Your task to perform on an android device: Open settings on Google Maps Image 0: 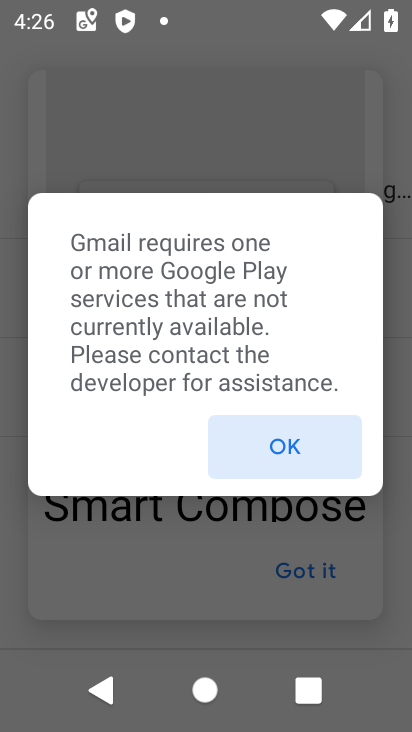
Step 0: press home button
Your task to perform on an android device: Open settings on Google Maps Image 1: 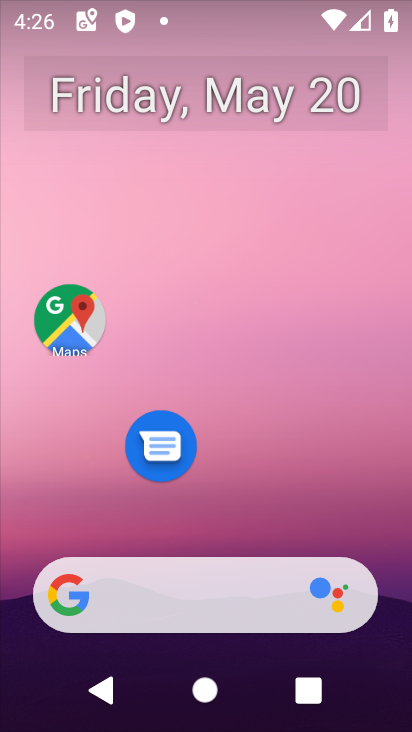
Step 1: drag from (208, 513) to (291, 8)
Your task to perform on an android device: Open settings on Google Maps Image 2: 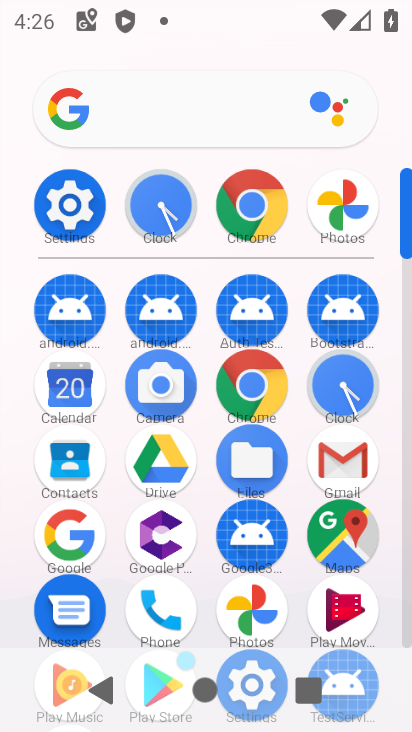
Step 2: click (349, 547)
Your task to perform on an android device: Open settings on Google Maps Image 3: 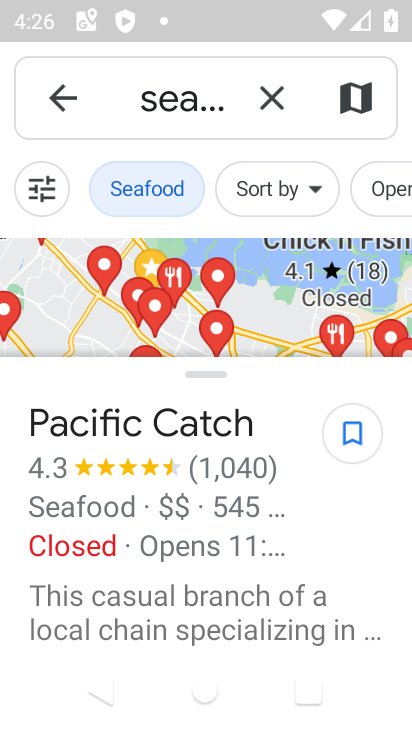
Step 3: click (61, 104)
Your task to perform on an android device: Open settings on Google Maps Image 4: 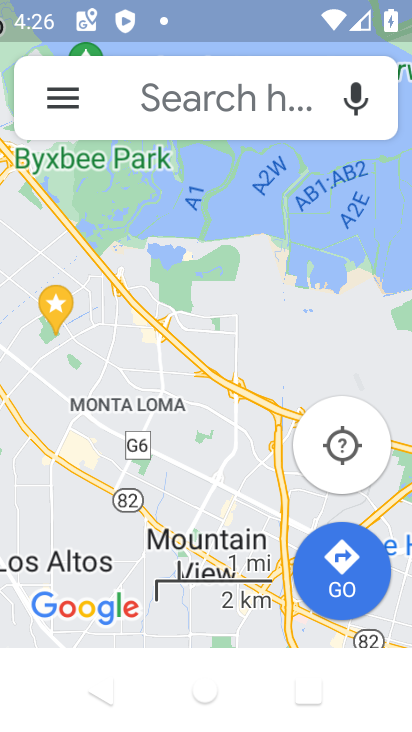
Step 4: click (69, 94)
Your task to perform on an android device: Open settings on Google Maps Image 5: 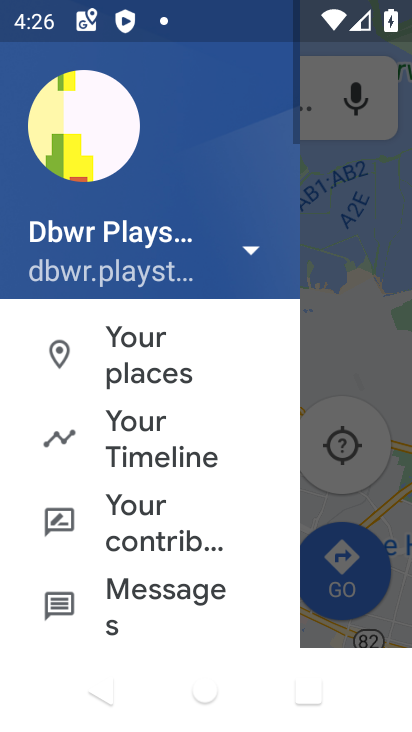
Step 5: drag from (118, 512) to (131, 100)
Your task to perform on an android device: Open settings on Google Maps Image 6: 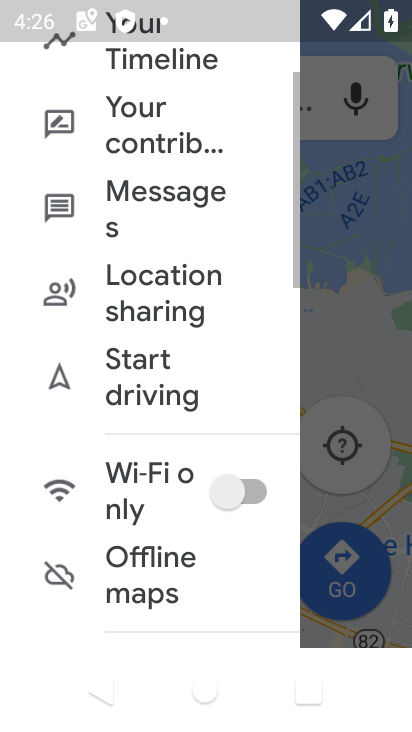
Step 6: drag from (106, 498) to (148, 62)
Your task to perform on an android device: Open settings on Google Maps Image 7: 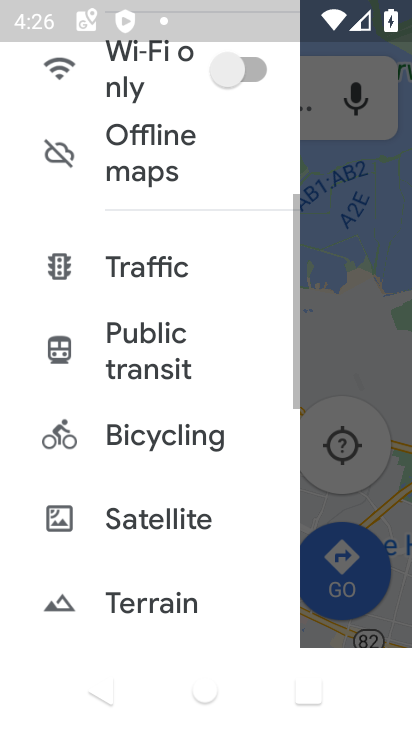
Step 7: drag from (134, 559) to (181, 47)
Your task to perform on an android device: Open settings on Google Maps Image 8: 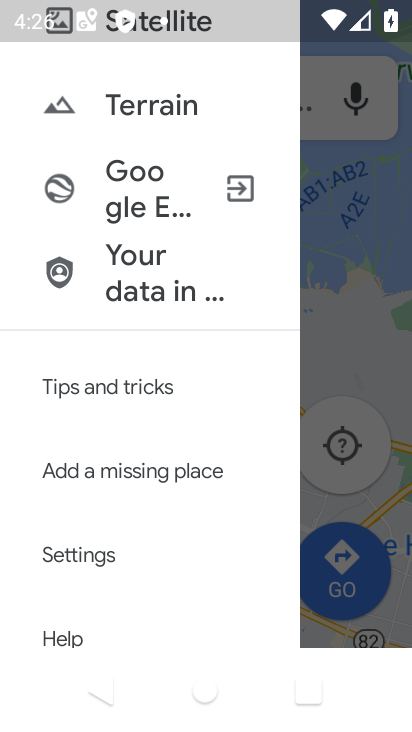
Step 8: drag from (133, 491) to (145, 379)
Your task to perform on an android device: Open settings on Google Maps Image 9: 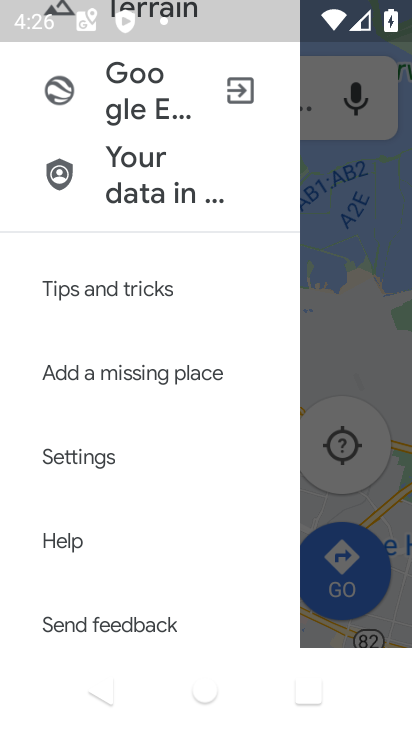
Step 9: click (100, 455)
Your task to perform on an android device: Open settings on Google Maps Image 10: 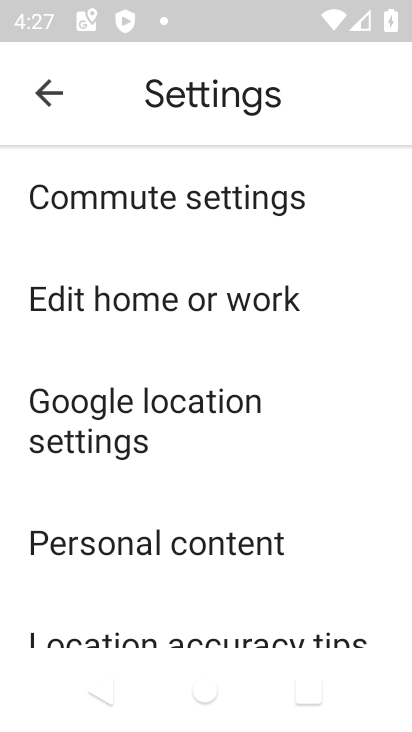
Step 10: task complete